Your task to perform on an android device: set the timer Image 0: 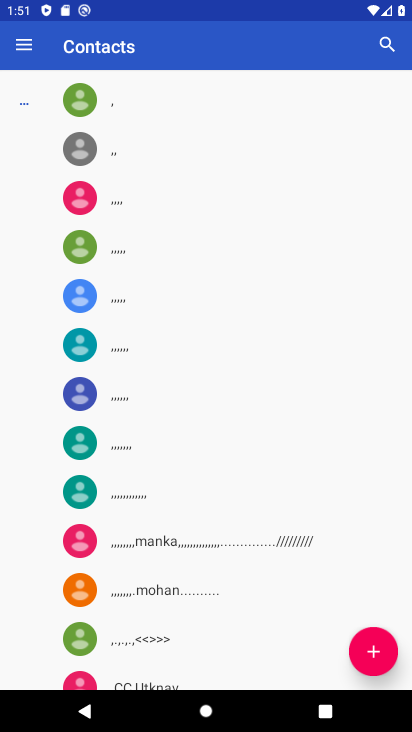
Step 0: press home button
Your task to perform on an android device: set the timer Image 1: 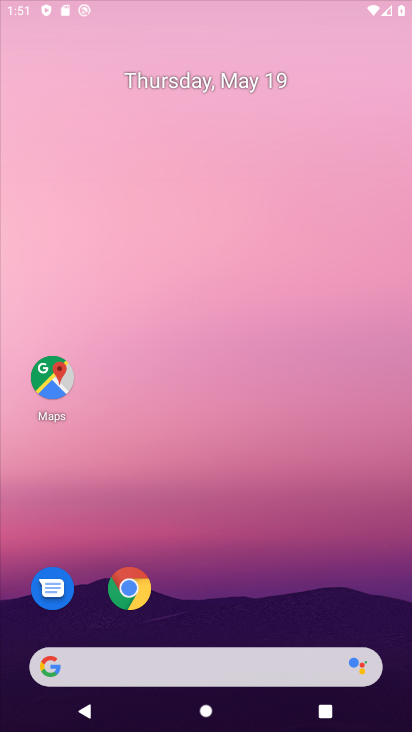
Step 1: drag from (234, 591) to (251, 48)
Your task to perform on an android device: set the timer Image 2: 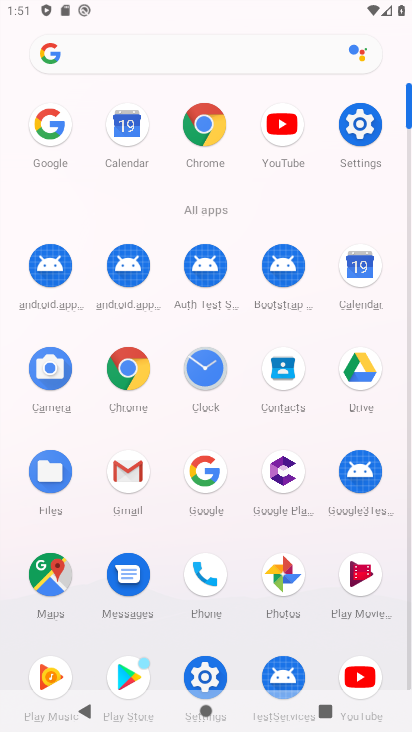
Step 2: click (213, 380)
Your task to perform on an android device: set the timer Image 3: 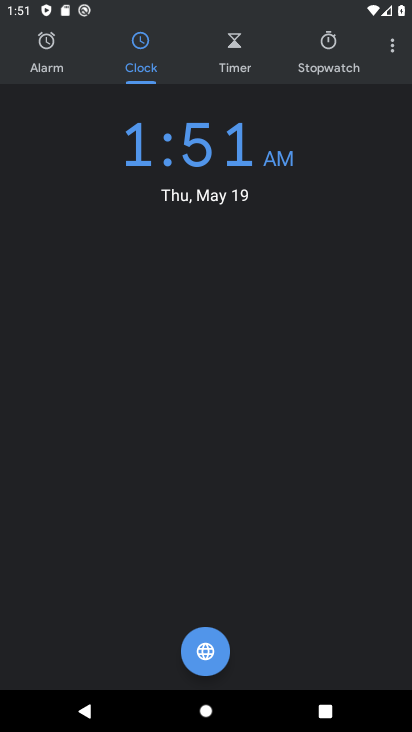
Step 3: click (230, 51)
Your task to perform on an android device: set the timer Image 4: 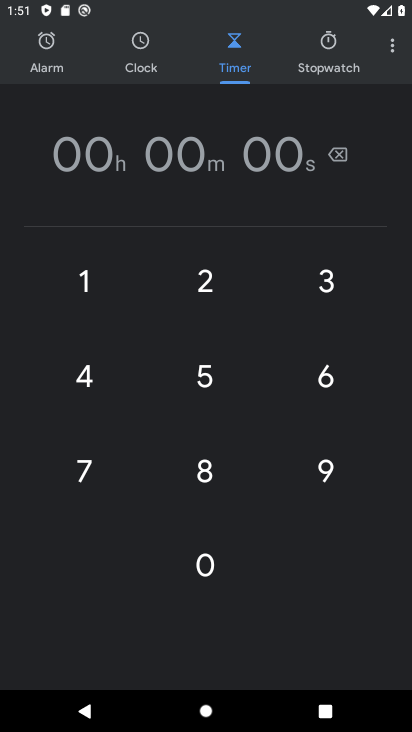
Step 4: click (194, 294)
Your task to perform on an android device: set the timer Image 5: 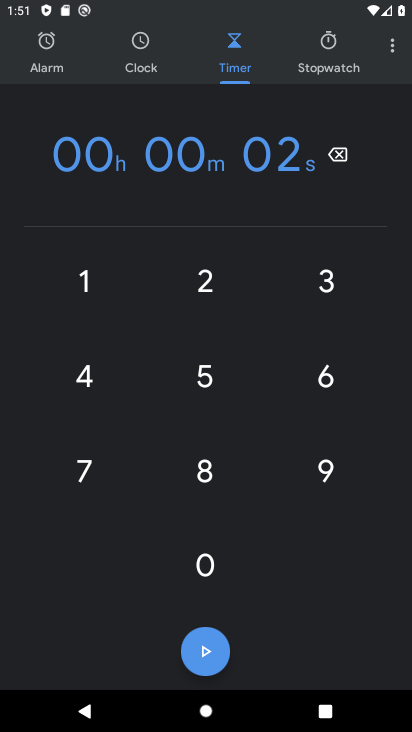
Step 5: click (194, 294)
Your task to perform on an android device: set the timer Image 6: 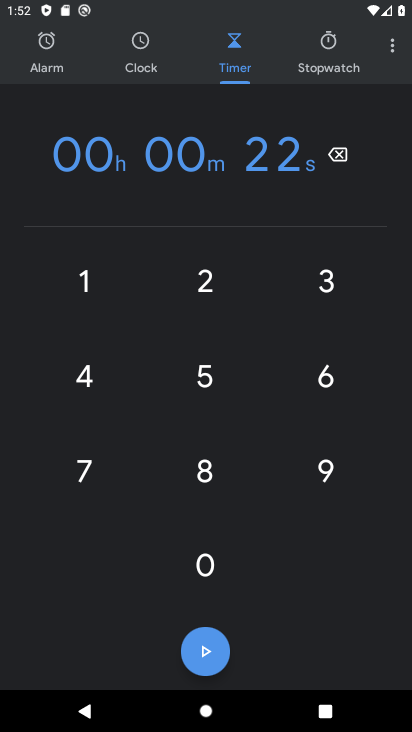
Step 6: task complete